Your task to perform on an android device: find snoozed emails in the gmail app Image 0: 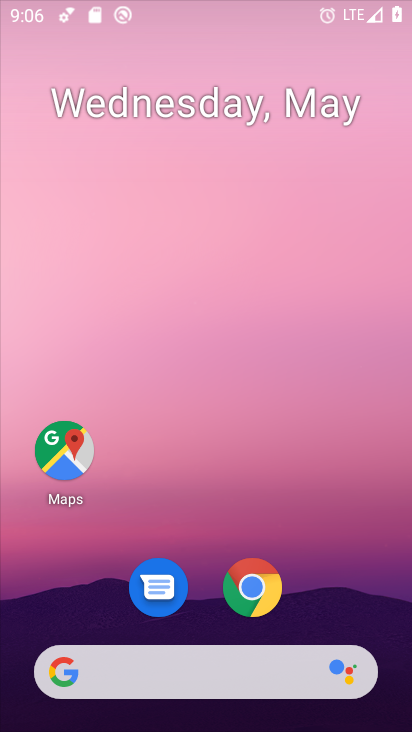
Step 0: click (192, 668)
Your task to perform on an android device: find snoozed emails in the gmail app Image 1: 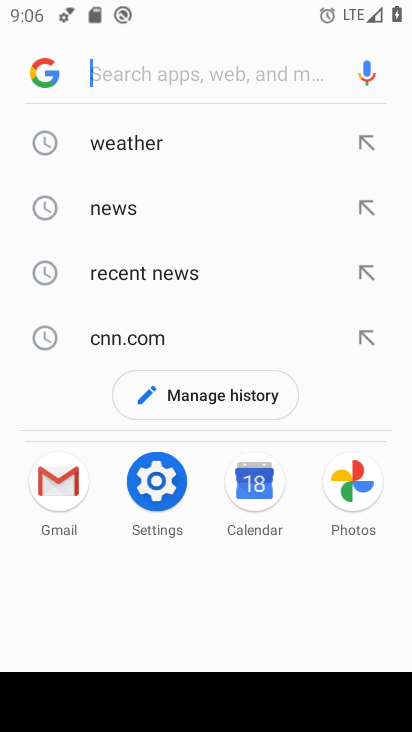
Step 1: press home button
Your task to perform on an android device: find snoozed emails in the gmail app Image 2: 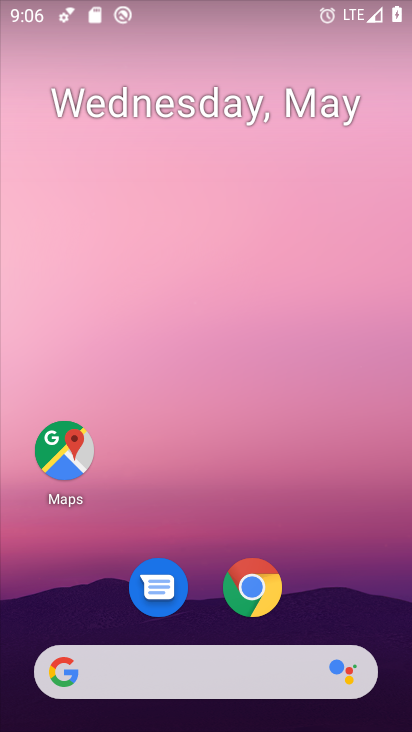
Step 2: drag from (200, 592) to (249, 38)
Your task to perform on an android device: find snoozed emails in the gmail app Image 3: 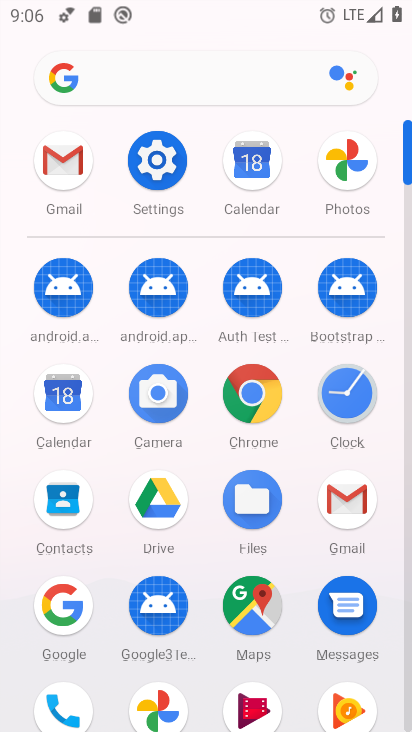
Step 3: click (348, 506)
Your task to perform on an android device: find snoozed emails in the gmail app Image 4: 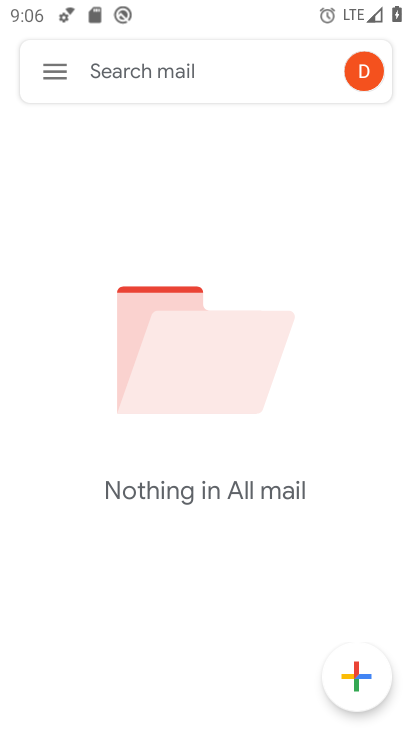
Step 4: click (58, 68)
Your task to perform on an android device: find snoozed emails in the gmail app Image 5: 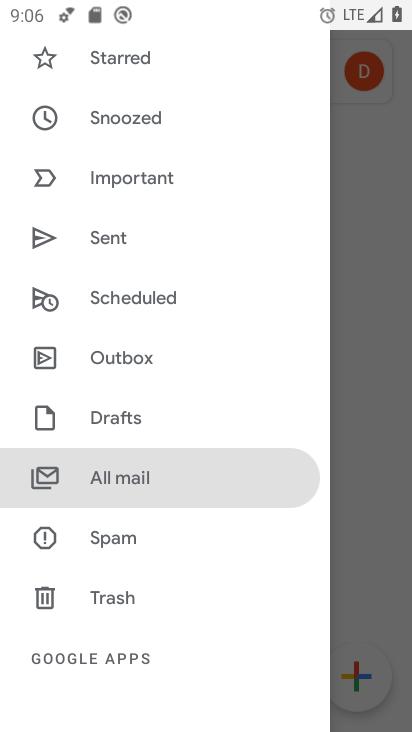
Step 5: click (138, 119)
Your task to perform on an android device: find snoozed emails in the gmail app Image 6: 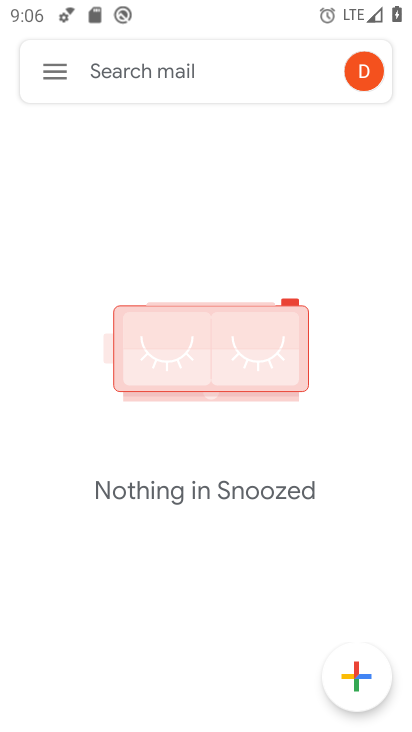
Step 6: task complete